Your task to perform on an android device: turn off airplane mode Image 0: 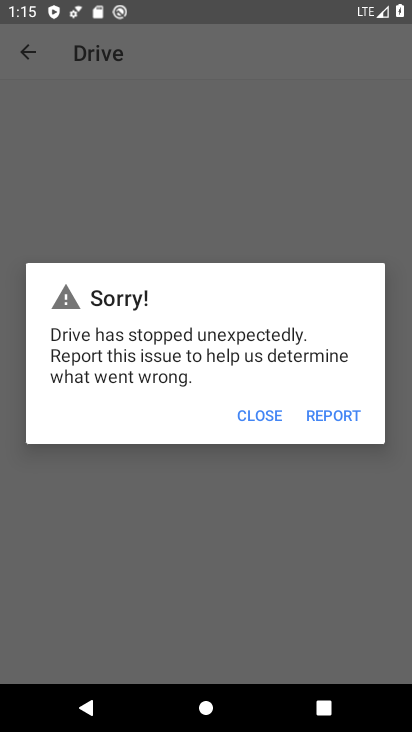
Step 0: drag from (368, 7) to (294, 539)
Your task to perform on an android device: turn off airplane mode Image 1: 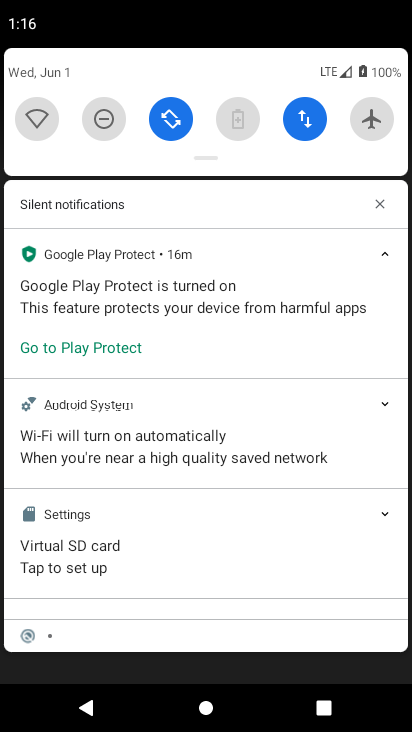
Step 1: task complete